Your task to perform on an android device: toggle javascript in the chrome app Image 0: 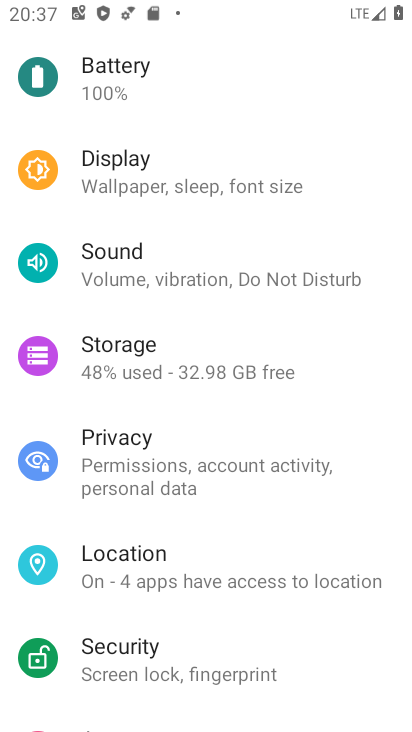
Step 0: press back button
Your task to perform on an android device: toggle javascript in the chrome app Image 1: 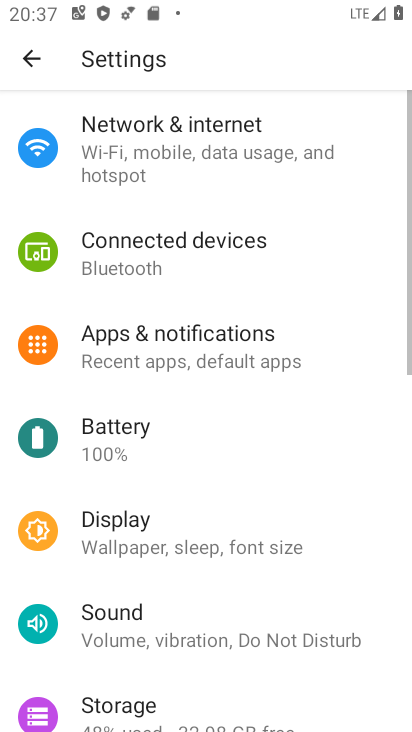
Step 1: press back button
Your task to perform on an android device: toggle javascript in the chrome app Image 2: 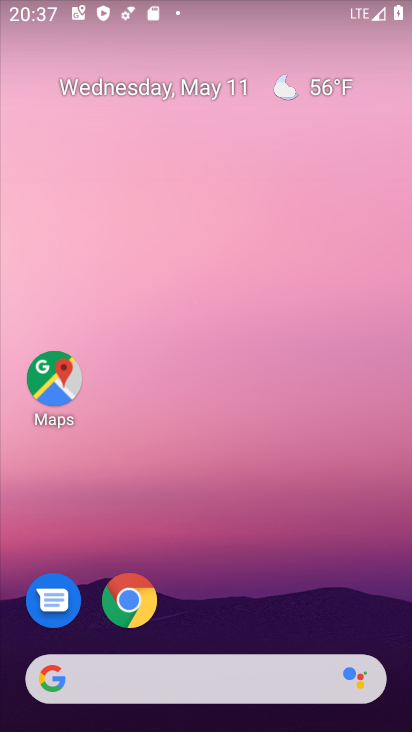
Step 2: click (126, 599)
Your task to perform on an android device: toggle javascript in the chrome app Image 3: 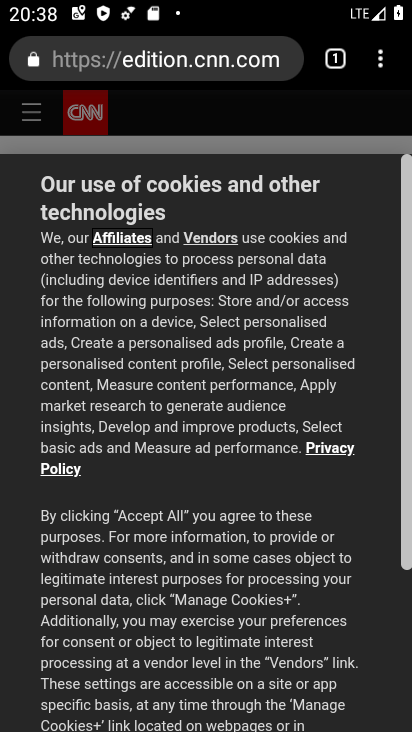
Step 3: click (379, 62)
Your task to perform on an android device: toggle javascript in the chrome app Image 4: 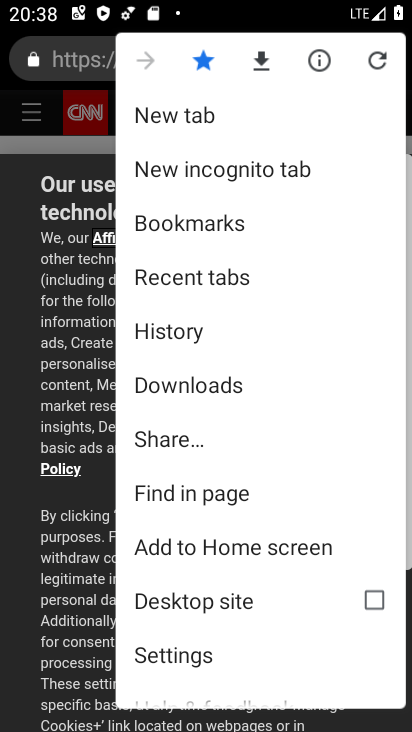
Step 4: click (165, 654)
Your task to perform on an android device: toggle javascript in the chrome app Image 5: 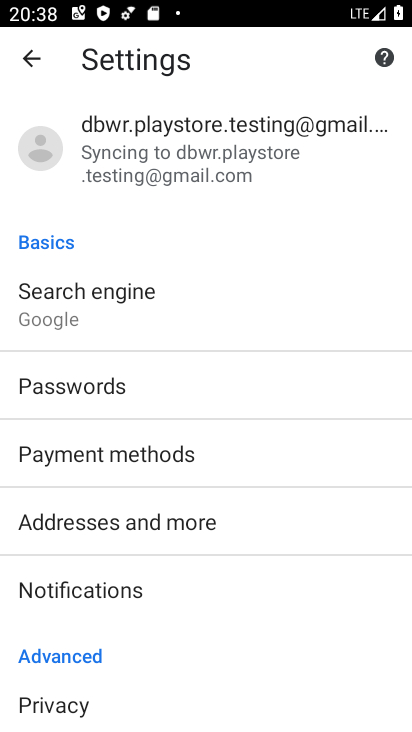
Step 5: drag from (165, 569) to (233, 399)
Your task to perform on an android device: toggle javascript in the chrome app Image 6: 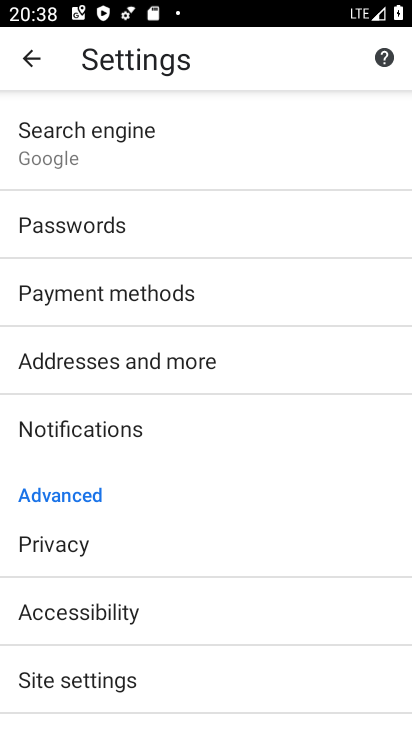
Step 6: drag from (143, 550) to (216, 423)
Your task to perform on an android device: toggle javascript in the chrome app Image 7: 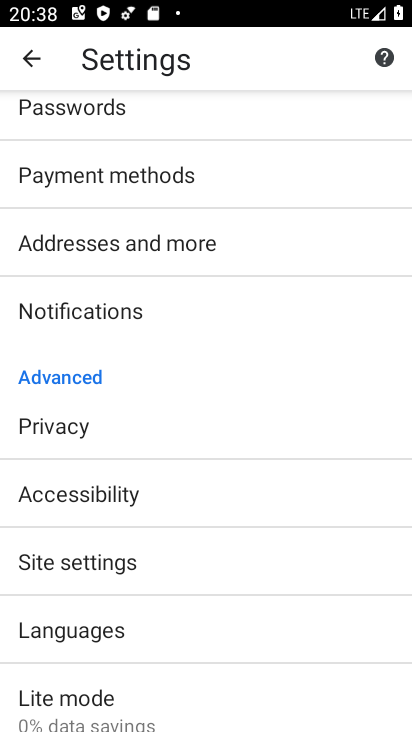
Step 7: click (115, 554)
Your task to perform on an android device: toggle javascript in the chrome app Image 8: 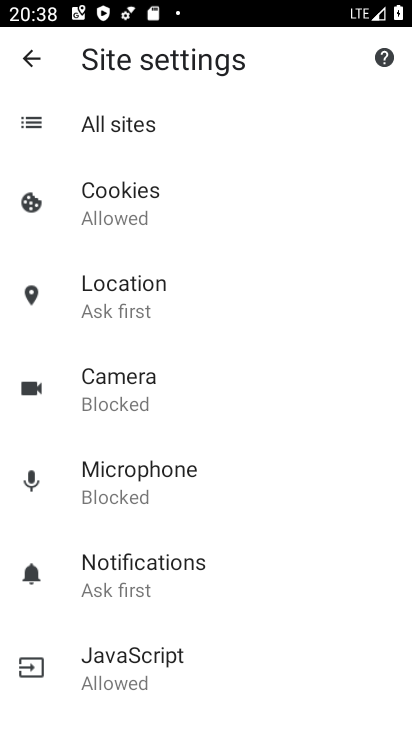
Step 8: click (164, 663)
Your task to perform on an android device: toggle javascript in the chrome app Image 9: 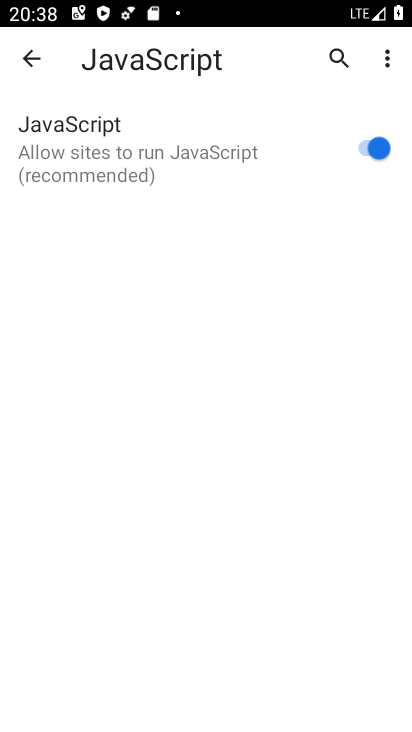
Step 9: click (369, 148)
Your task to perform on an android device: toggle javascript in the chrome app Image 10: 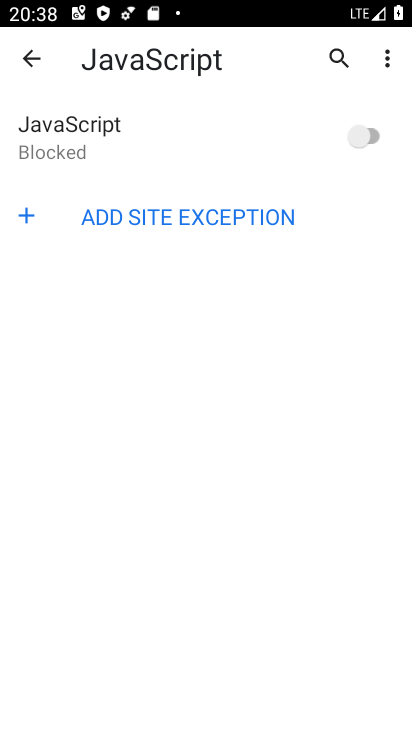
Step 10: task complete